Your task to perform on an android device: toggle sleep mode Image 0: 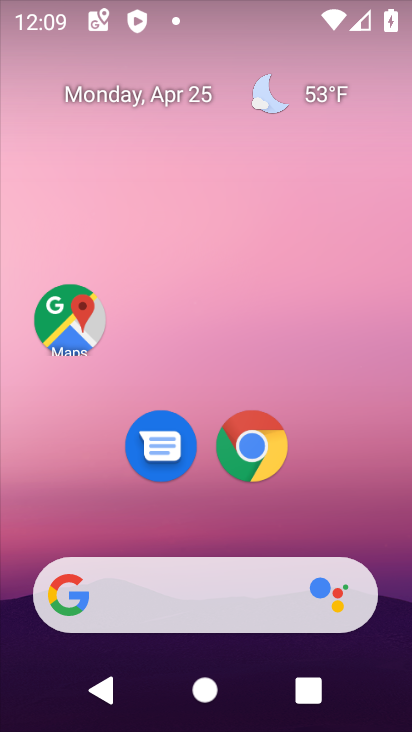
Step 0: click (263, 21)
Your task to perform on an android device: toggle sleep mode Image 1: 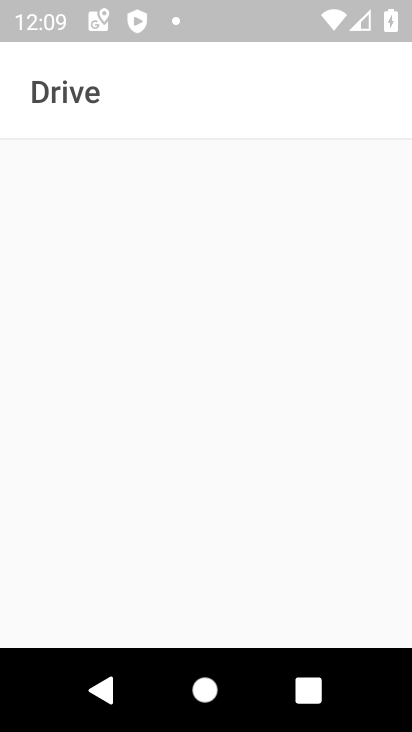
Step 1: press home button
Your task to perform on an android device: toggle sleep mode Image 2: 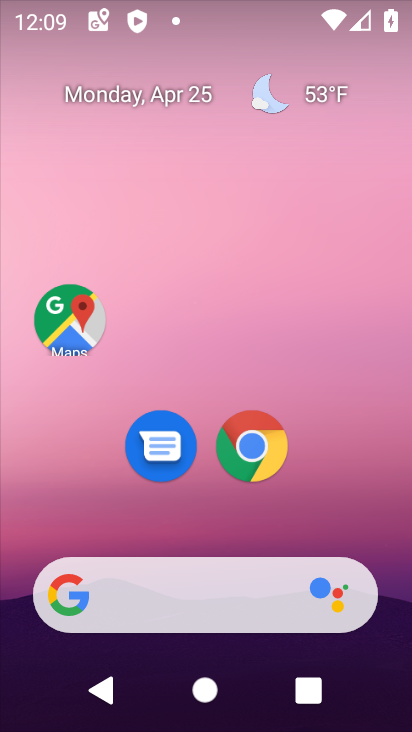
Step 2: drag from (226, 526) to (291, 3)
Your task to perform on an android device: toggle sleep mode Image 3: 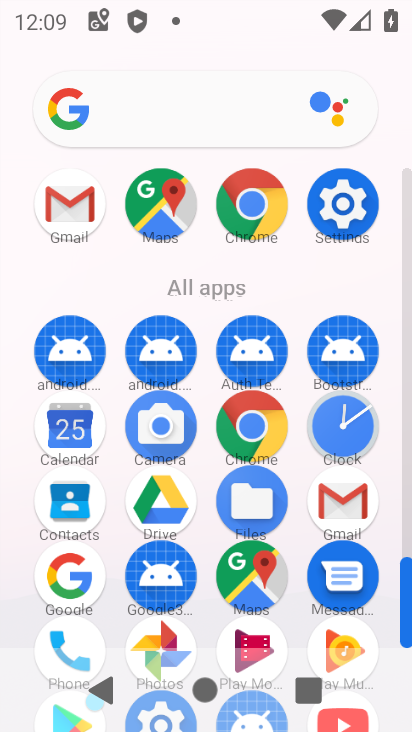
Step 3: click (343, 215)
Your task to perform on an android device: toggle sleep mode Image 4: 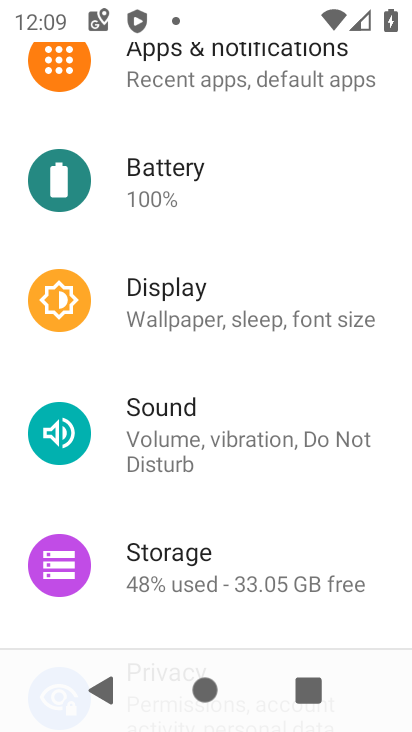
Step 4: drag from (201, 183) to (150, 683)
Your task to perform on an android device: toggle sleep mode Image 5: 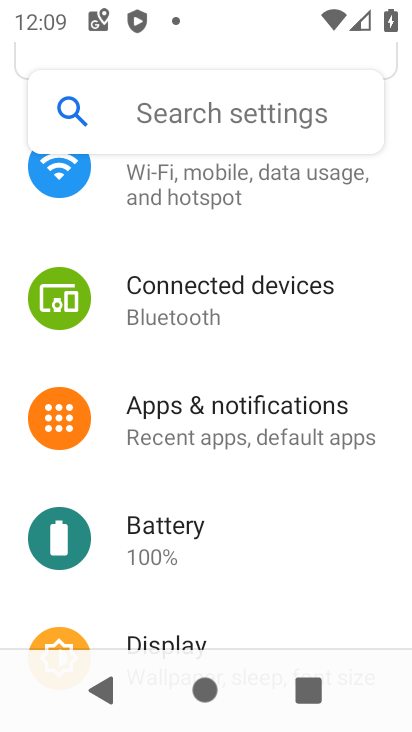
Step 5: click (204, 114)
Your task to perform on an android device: toggle sleep mode Image 6: 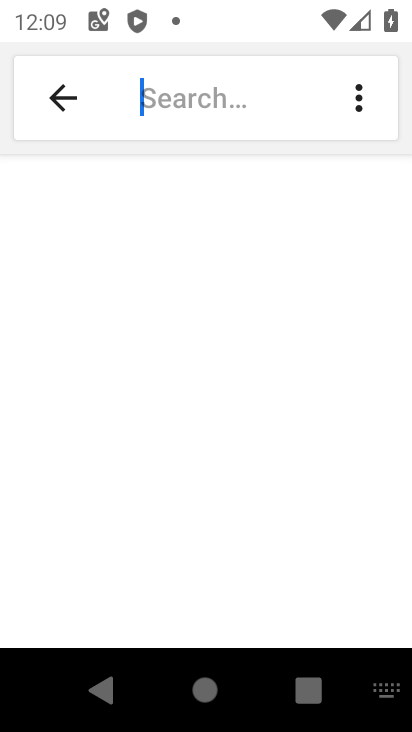
Step 6: type "sleep mode"
Your task to perform on an android device: toggle sleep mode Image 7: 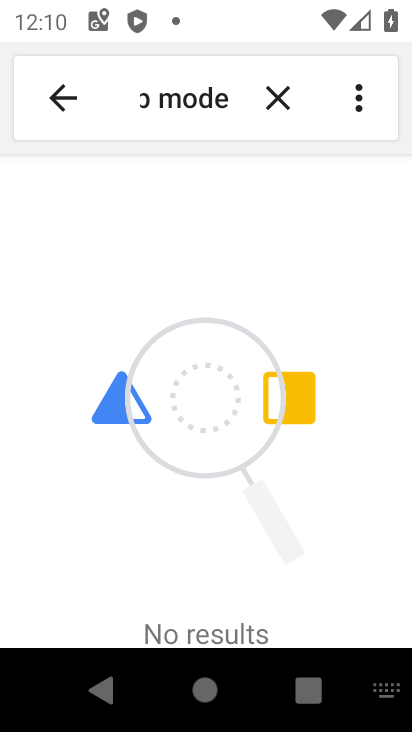
Step 7: task complete